Your task to perform on an android device: toggle show notifications on the lock screen Image 0: 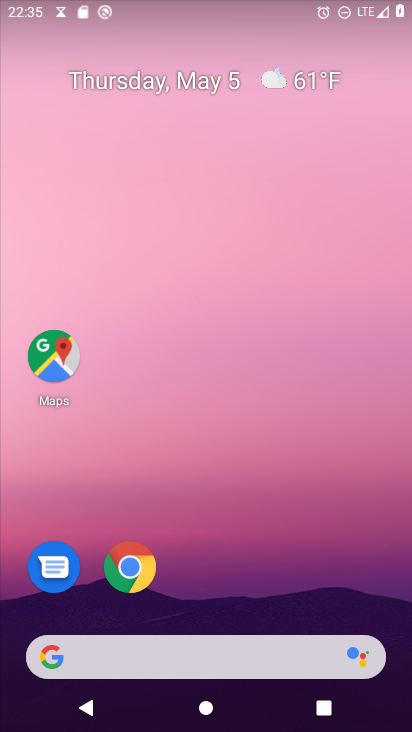
Step 0: drag from (228, 723) to (207, 237)
Your task to perform on an android device: toggle show notifications on the lock screen Image 1: 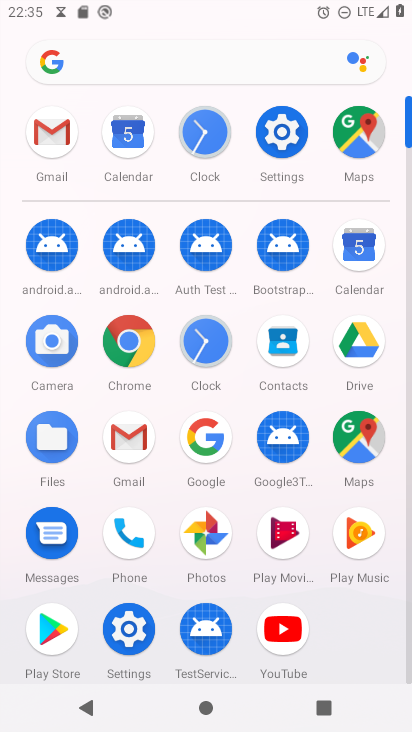
Step 1: click (287, 130)
Your task to perform on an android device: toggle show notifications on the lock screen Image 2: 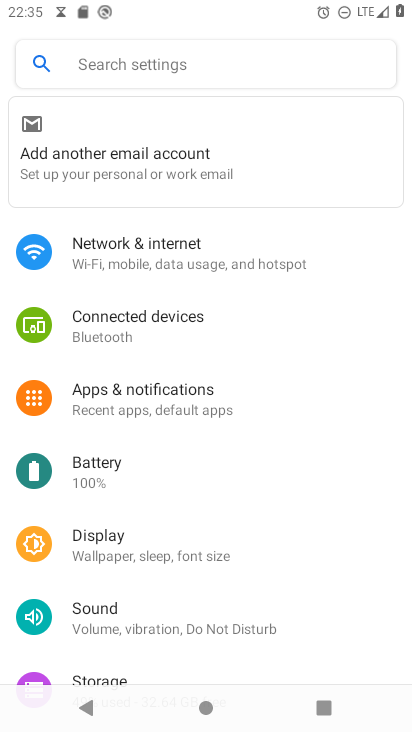
Step 2: click (137, 402)
Your task to perform on an android device: toggle show notifications on the lock screen Image 3: 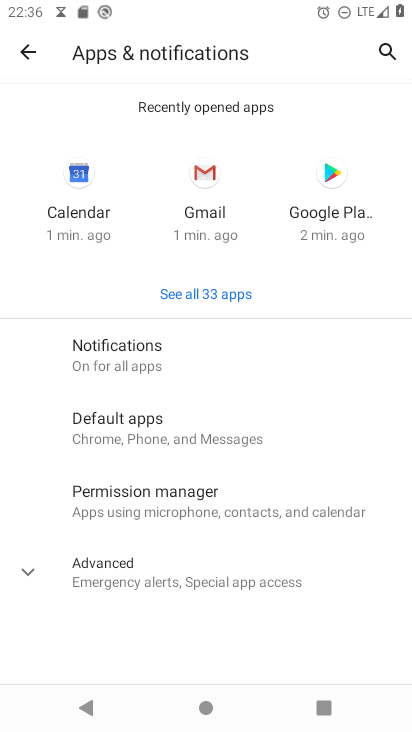
Step 3: click (126, 359)
Your task to perform on an android device: toggle show notifications on the lock screen Image 4: 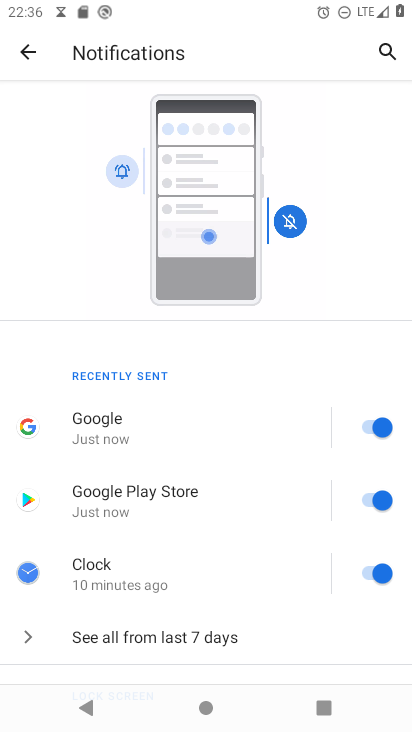
Step 4: drag from (209, 661) to (204, 354)
Your task to perform on an android device: toggle show notifications on the lock screen Image 5: 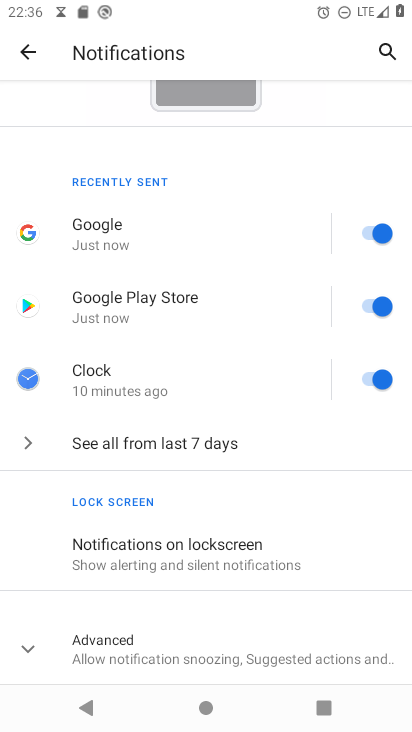
Step 5: click (176, 557)
Your task to perform on an android device: toggle show notifications on the lock screen Image 6: 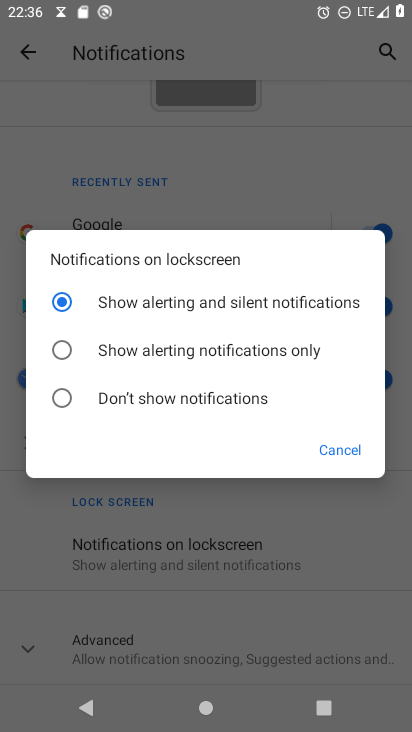
Step 6: click (63, 351)
Your task to perform on an android device: toggle show notifications on the lock screen Image 7: 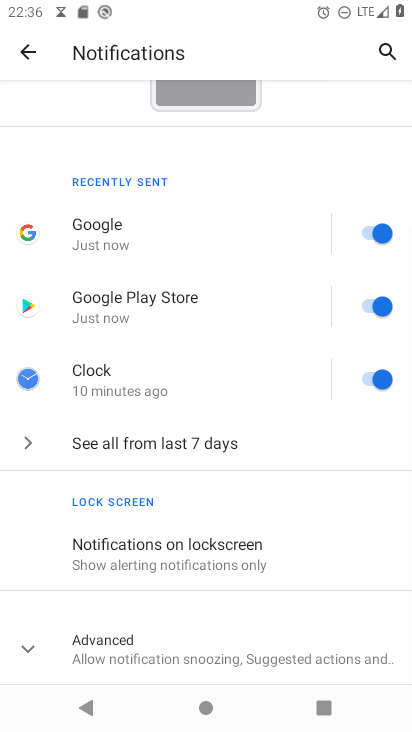
Step 7: task complete